Your task to perform on an android device: change the clock display to analog Image 0: 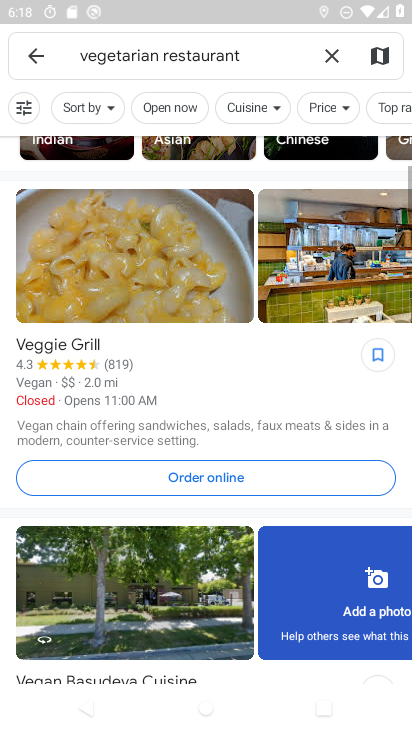
Step 0: drag from (220, 599) to (215, 495)
Your task to perform on an android device: change the clock display to analog Image 1: 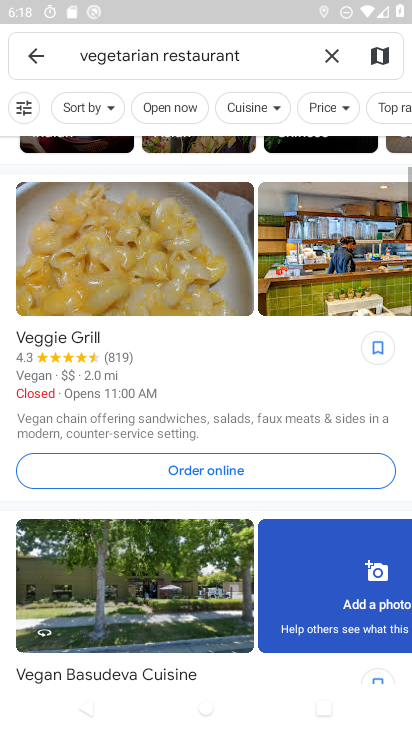
Step 1: press home button
Your task to perform on an android device: change the clock display to analog Image 2: 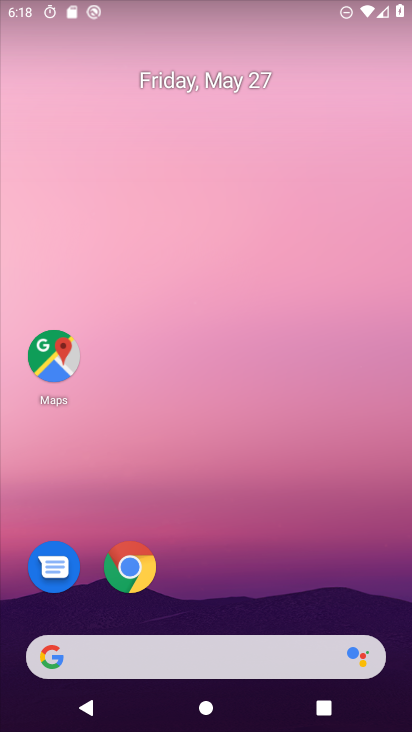
Step 2: drag from (248, 597) to (163, 15)
Your task to perform on an android device: change the clock display to analog Image 3: 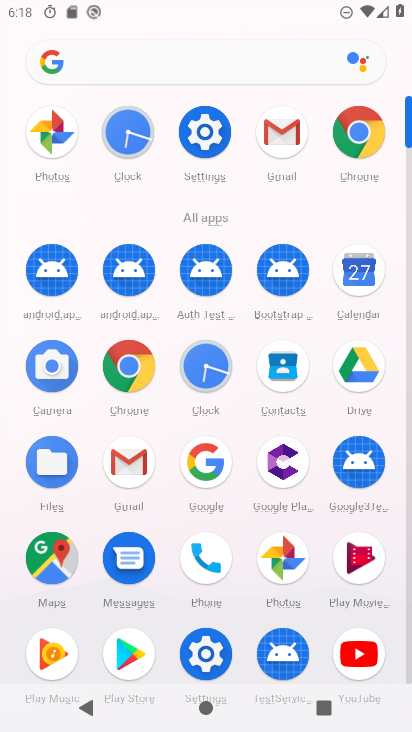
Step 3: click (203, 136)
Your task to perform on an android device: change the clock display to analog Image 4: 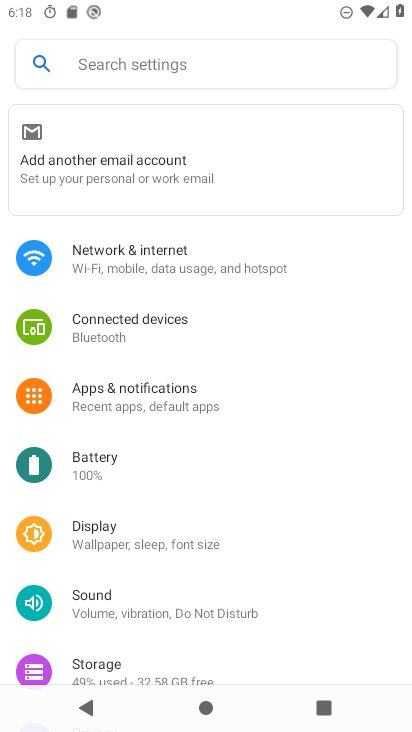
Step 4: press home button
Your task to perform on an android device: change the clock display to analog Image 5: 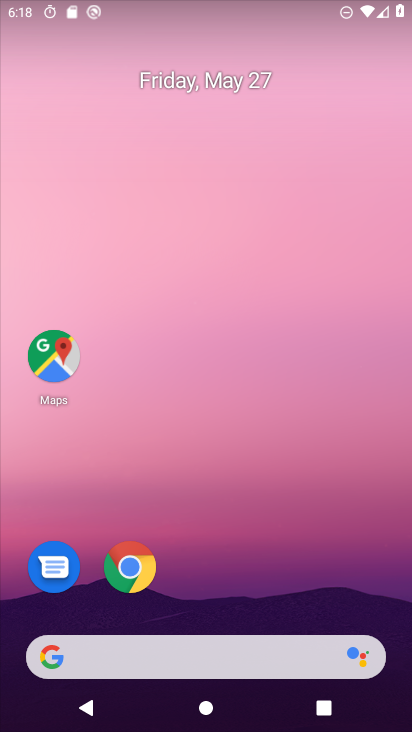
Step 5: drag from (209, 603) to (254, 8)
Your task to perform on an android device: change the clock display to analog Image 6: 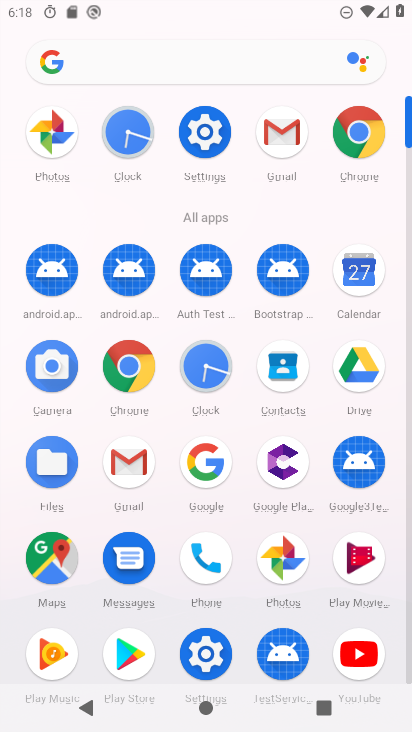
Step 6: click (205, 374)
Your task to perform on an android device: change the clock display to analog Image 7: 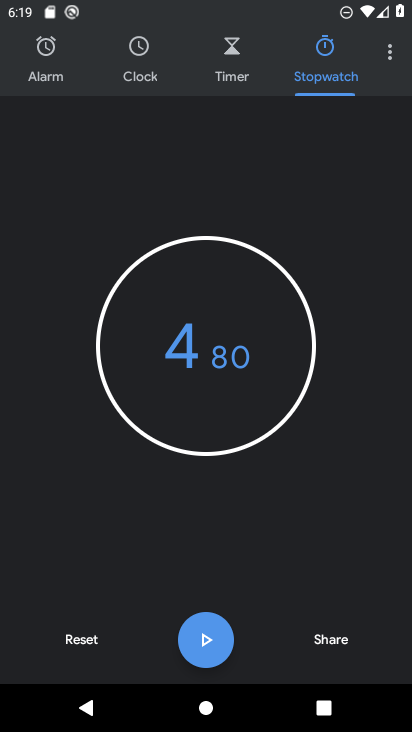
Step 7: click (385, 59)
Your task to perform on an android device: change the clock display to analog Image 8: 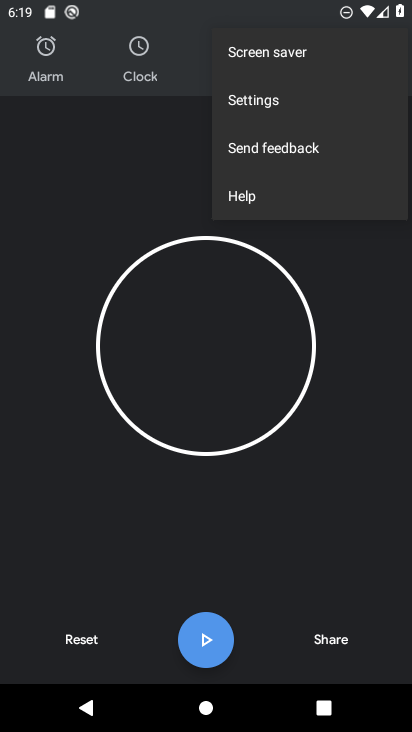
Step 8: click (276, 104)
Your task to perform on an android device: change the clock display to analog Image 9: 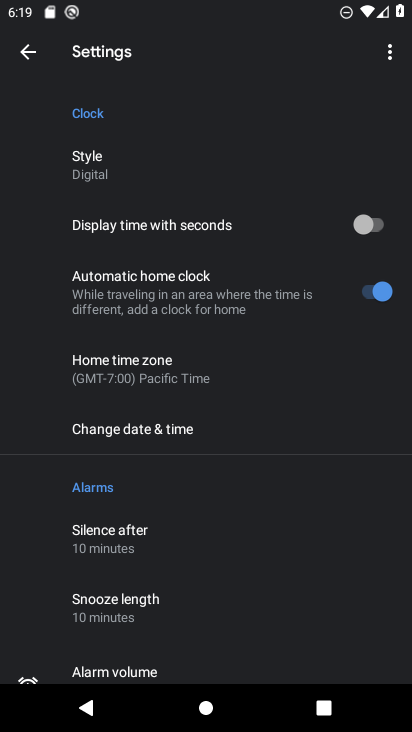
Step 9: click (85, 164)
Your task to perform on an android device: change the clock display to analog Image 10: 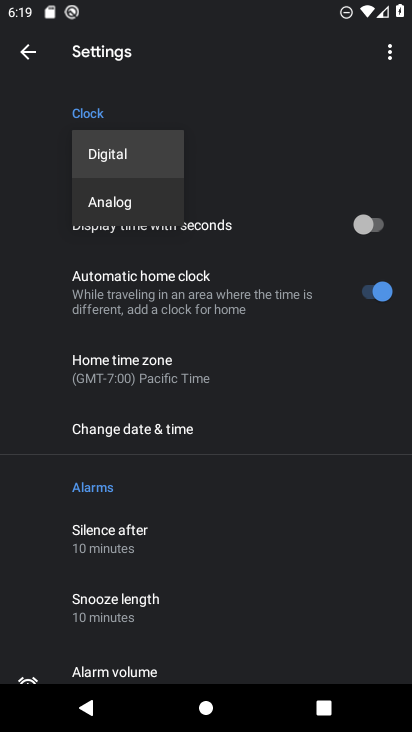
Step 10: click (134, 199)
Your task to perform on an android device: change the clock display to analog Image 11: 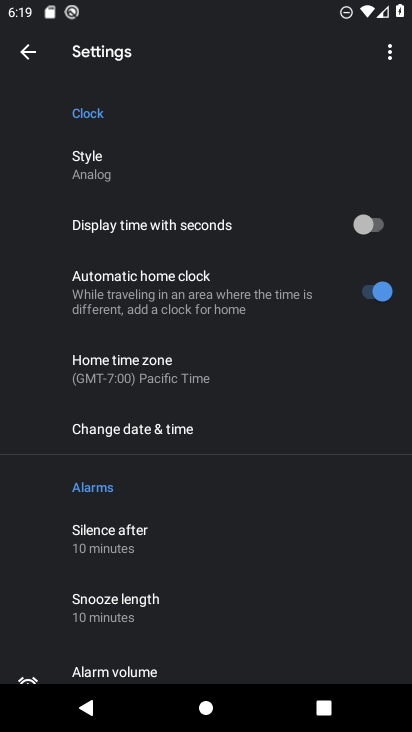
Step 11: task complete